Your task to perform on an android device: check data usage Image 0: 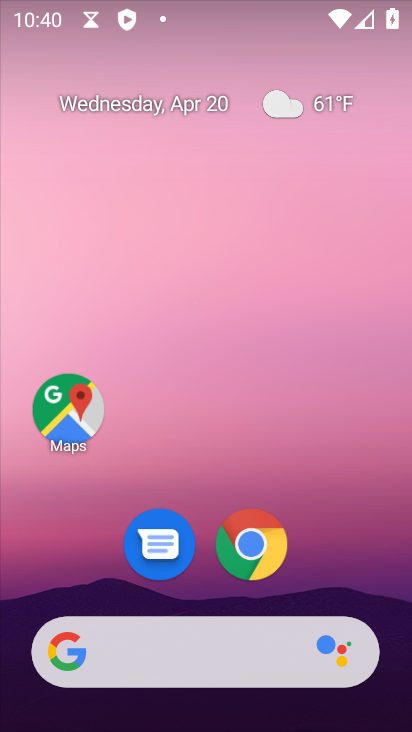
Step 0: drag from (173, 654) to (300, 157)
Your task to perform on an android device: check data usage Image 1: 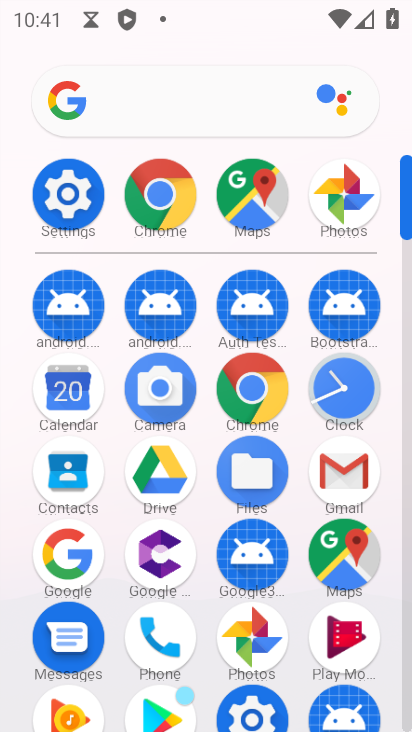
Step 1: click (76, 206)
Your task to perform on an android device: check data usage Image 2: 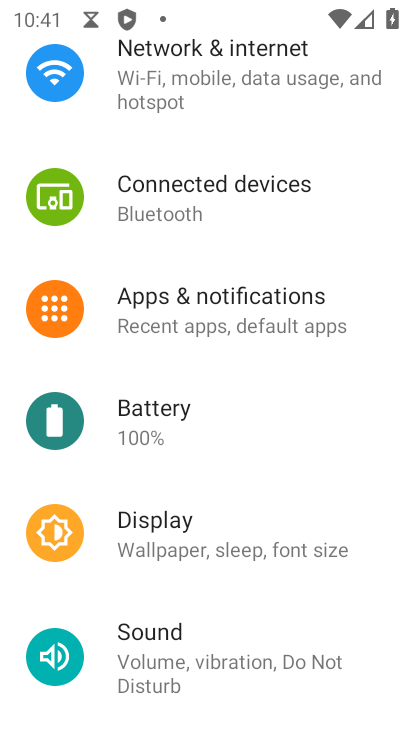
Step 2: drag from (231, 185) to (154, 615)
Your task to perform on an android device: check data usage Image 3: 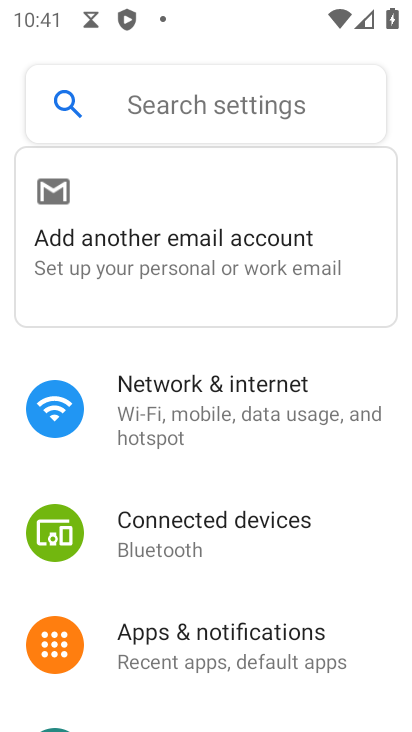
Step 3: click (233, 402)
Your task to perform on an android device: check data usage Image 4: 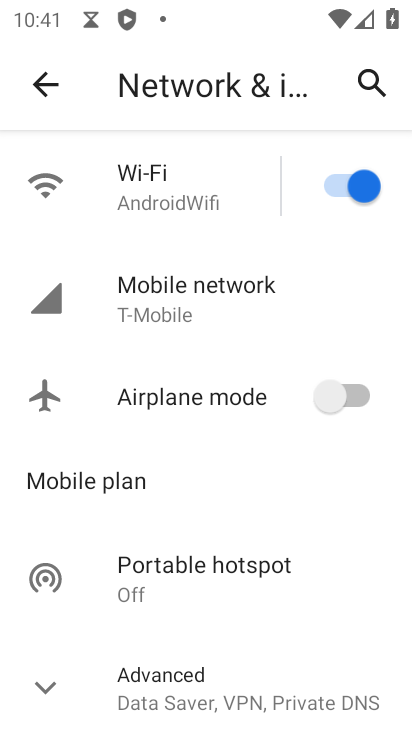
Step 4: click (192, 205)
Your task to perform on an android device: check data usage Image 5: 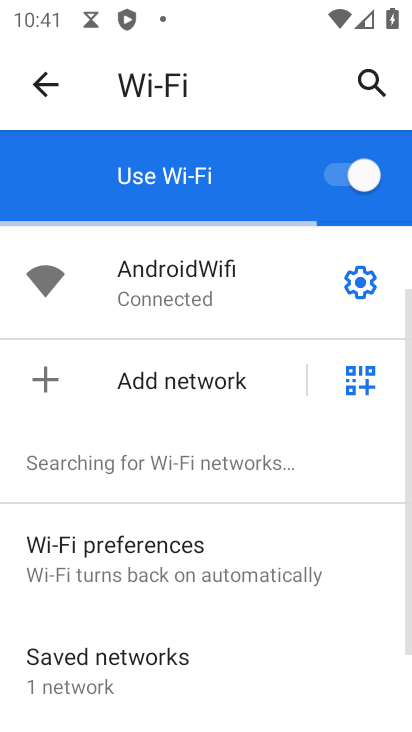
Step 5: drag from (170, 638) to (340, 173)
Your task to perform on an android device: check data usage Image 6: 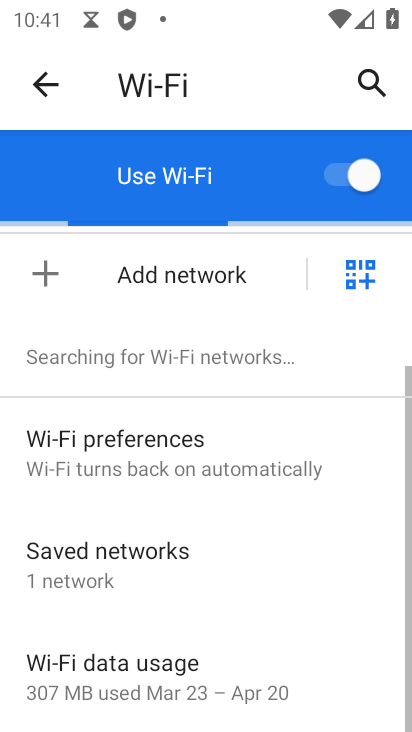
Step 6: click (124, 660)
Your task to perform on an android device: check data usage Image 7: 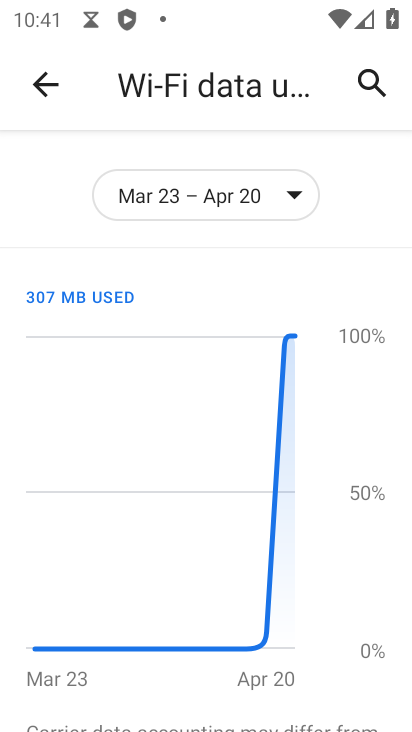
Step 7: task complete